Your task to perform on an android device: toggle airplane mode Image 0: 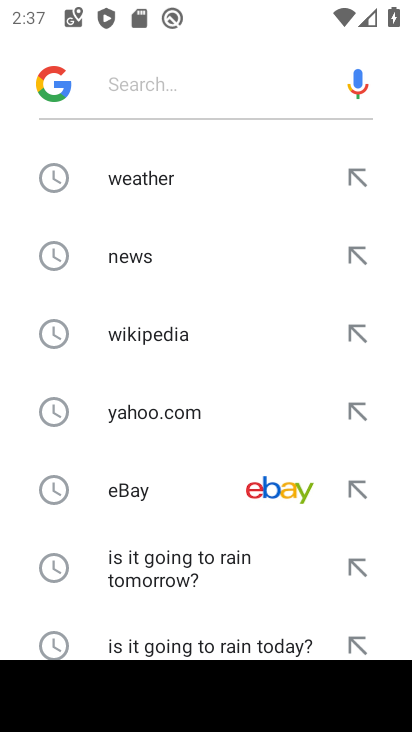
Step 0: press home button
Your task to perform on an android device: toggle airplane mode Image 1: 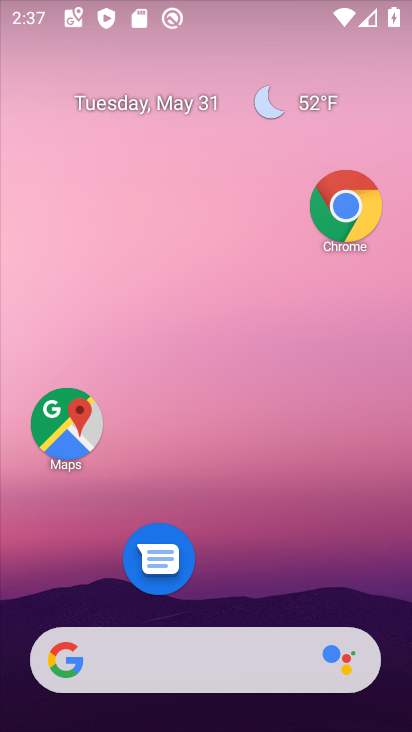
Step 1: drag from (219, 566) to (210, 154)
Your task to perform on an android device: toggle airplane mode Image 2: 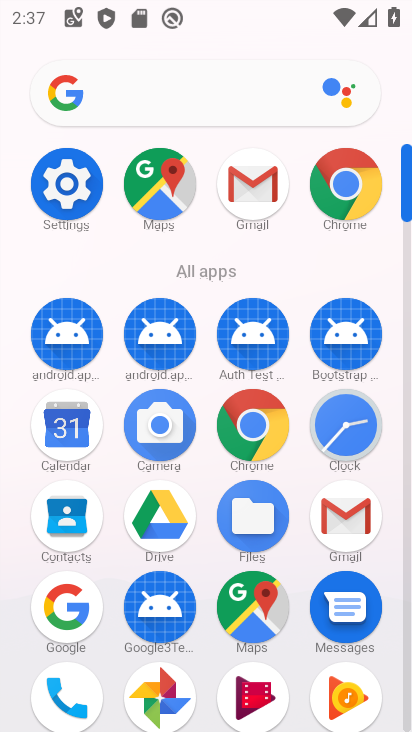
Step 2: click (86, 182)
Your task to perform on an android device: toggle airplane mode Image 3: 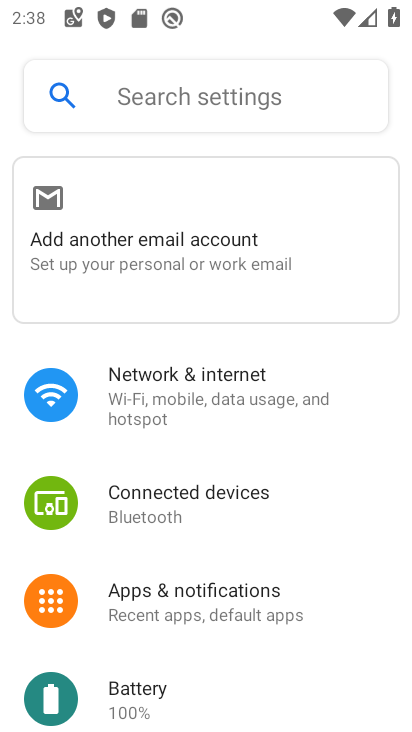
Step 3: click (221, 400)
Your task to perform on an android device: toggle airplane mode Image 4: 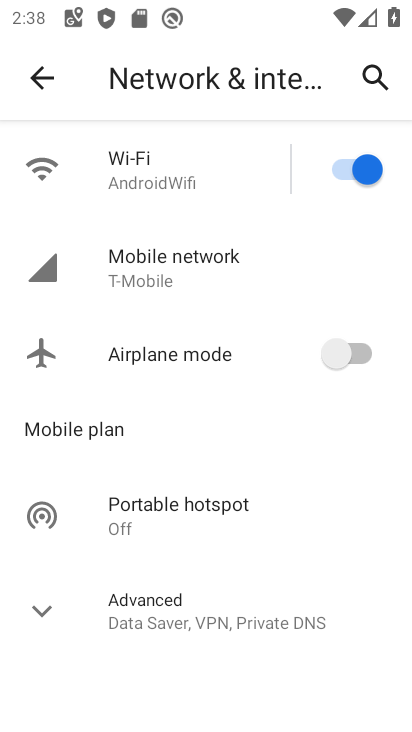
Step 4: click (342, 363)
Your task to perform on an android device: toggle airplane mode Image 5: 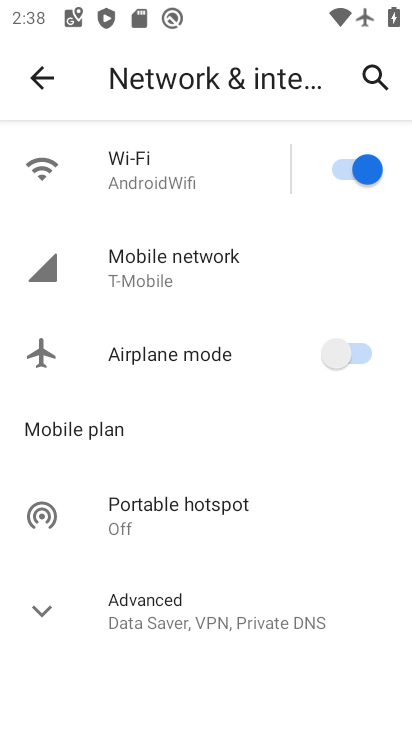
Step 5: task complete